Your task to perform on an android device: Open the web browser Image 0: 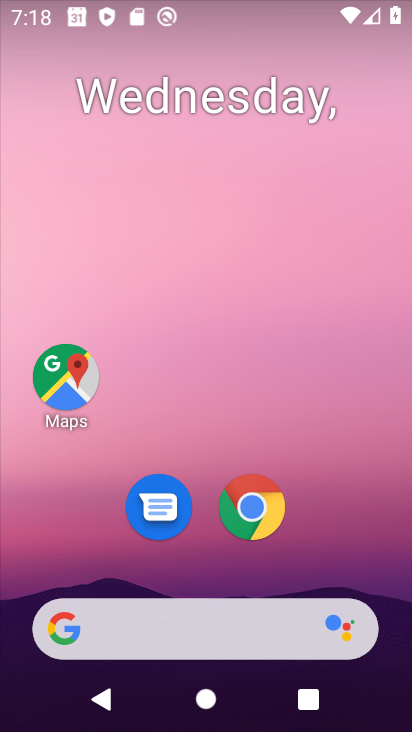
Step 0: drag from (252, 654) to (302, 138)
Your task to perform on an android device: Open the web browser Image 1: 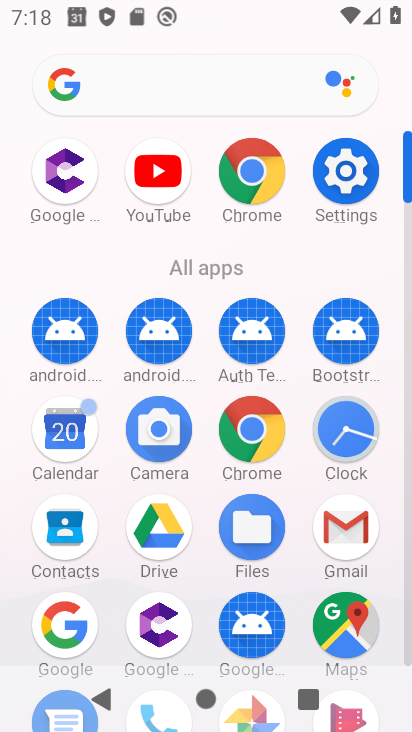
Step 1: click (261, 174)
Your task to perform on an android device: Open the web browser Image 2: 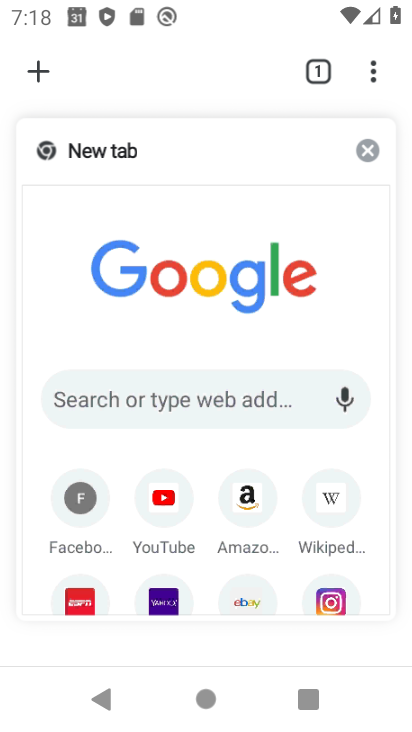
Step 2: click (124, 205)
Your task to perform on an android device: Open the web browser Image 3: 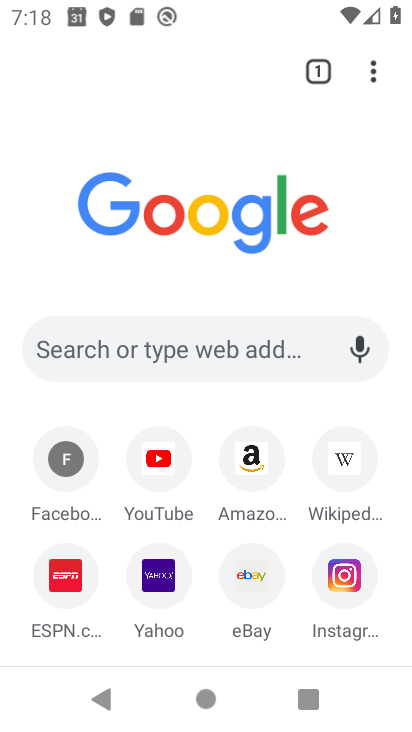
Step 3: click (95, 351)
Your task to perform on an android device: Open the web browser Image 4: 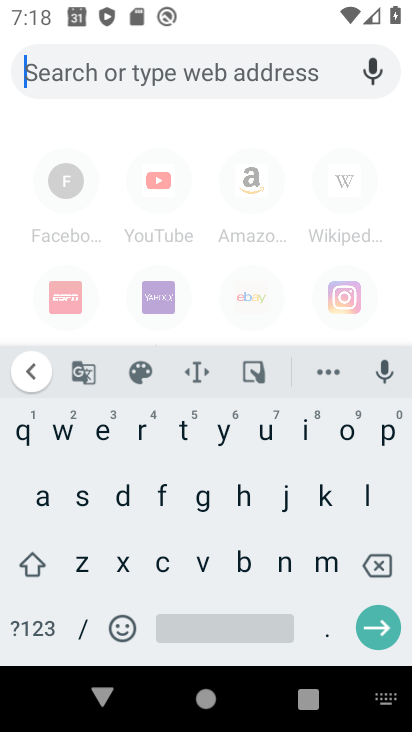
Step 4: click (65, 430)
Your task to perform on an android device: Open the web browser Image 5: 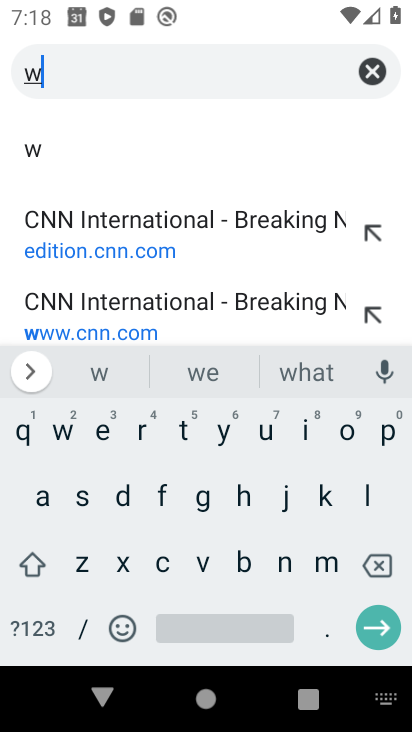
Step 5: click (98, 429)
Your task to perform on an android device: Open the web browser Image 6: 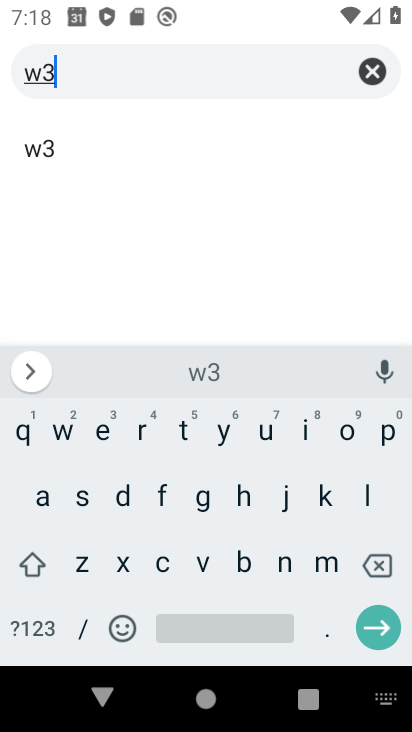
Step 6: click (380, 553)
Your task to perform on an android device: Open the web browser Image 7: 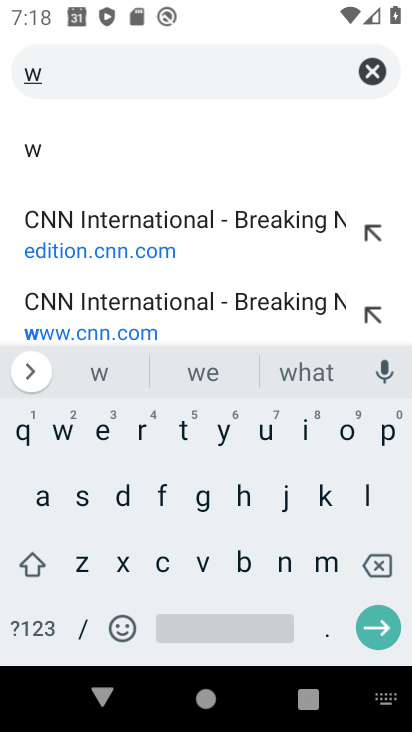
Step 7: click (104, 429)
Your task to perform on an android device: Open the web browser Image 8: 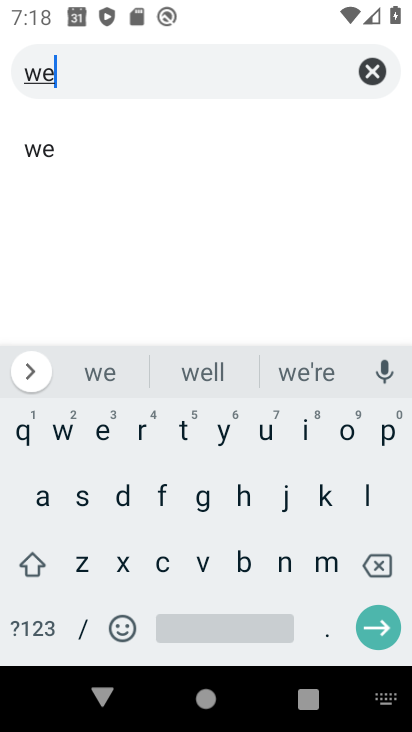
Step 8: click (241, 567)
Your task to perform on an android device: Open the web browser Image 9: 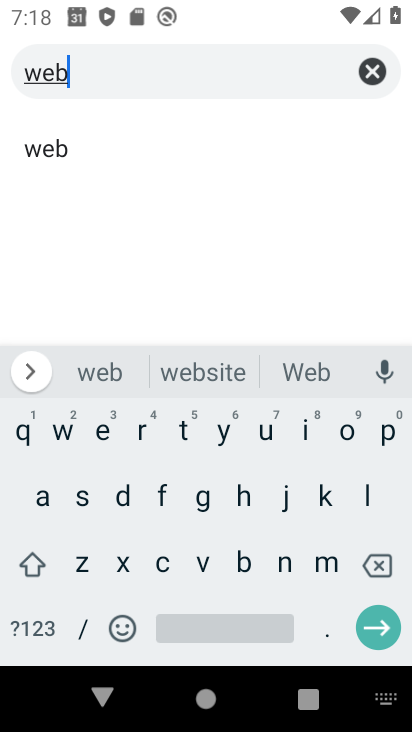
Step 9: click (201, 623)
Your task to perform on an android device: Open the web browser Image 10: 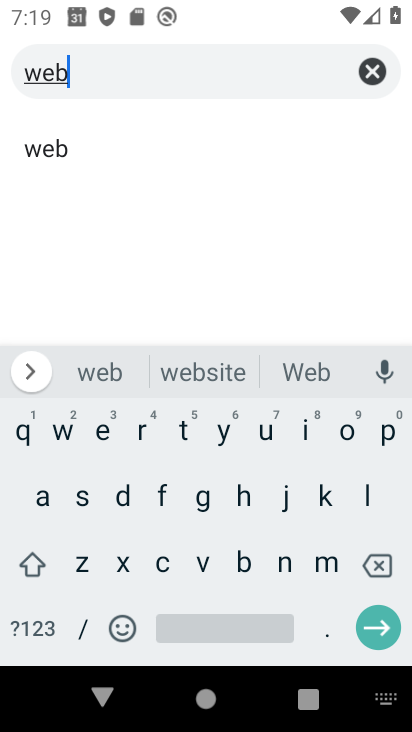
Step 10: click (241, 567)
Your task to perform on an android device: Open the web browser Image 11: 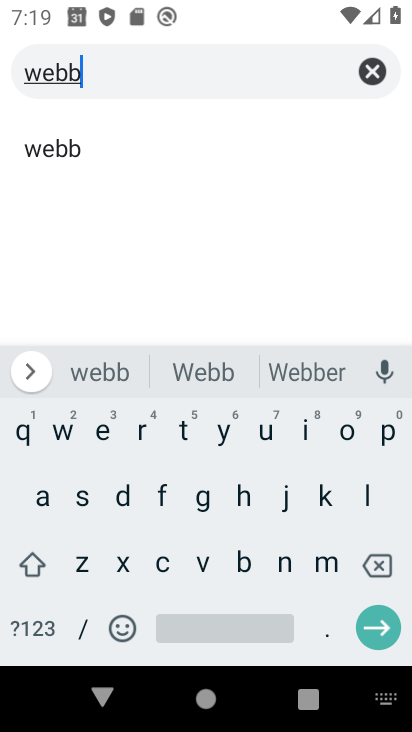
Step 11: click (134, 428)
Your task to perform on an android device: Open the web browser Image 12: 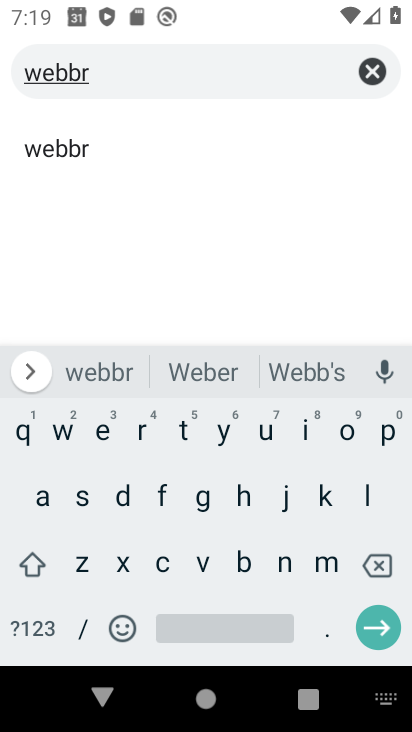
Step 12: click (379, 564)
Your task to perform on an android device: Open the web browser Image 13: 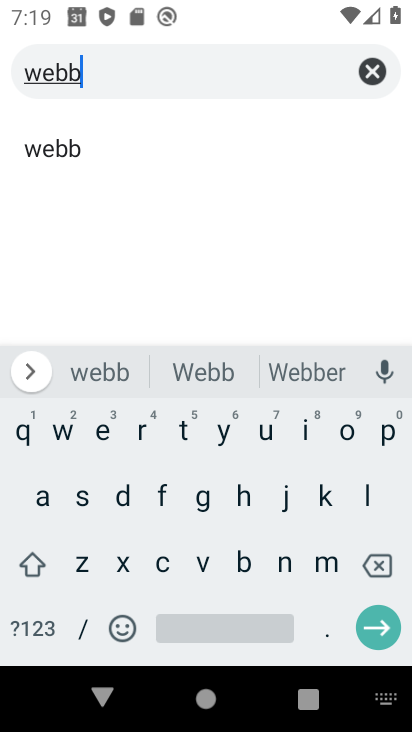
Step 13: click (378, 562)
Your task to perform on an android device: Open the web browser Image 14: 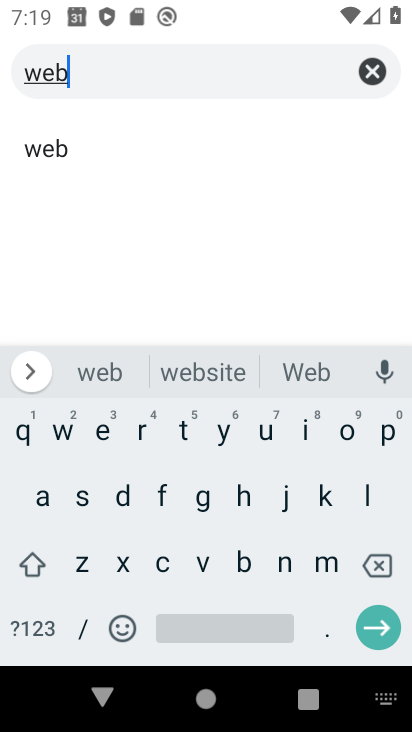
Step 14: click (143, 429)
Your task to perform on an android device: Open the web browser Image 15: 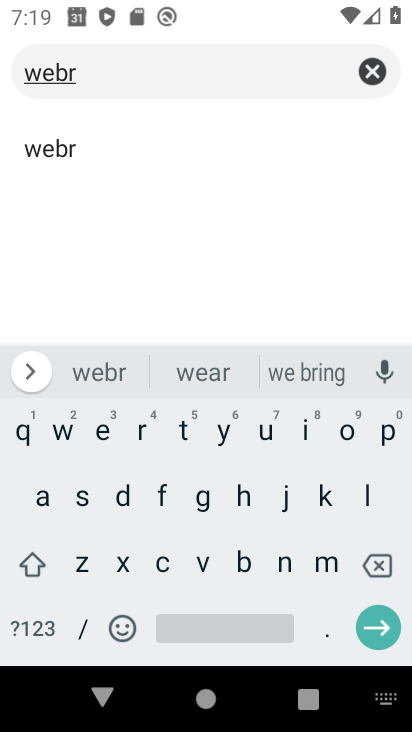
Step 15: click (351, 432)
Your task to perform on an android device: Open the web browser Image 16: 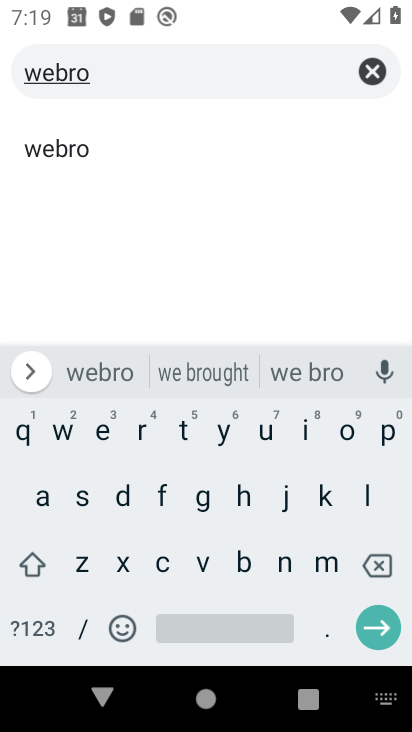
Step 16: click (60, 433)
Your task to perform on an android device: Open the web browser Image 17: 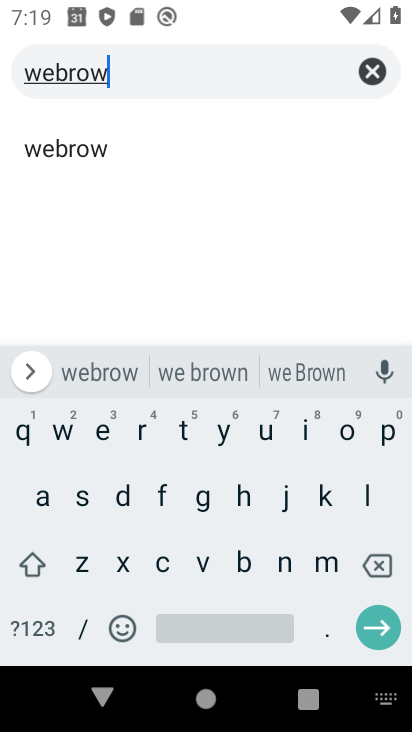
Step 17: click (80, 491)
Your task to perform on an android device: Open the web browser Image 18: 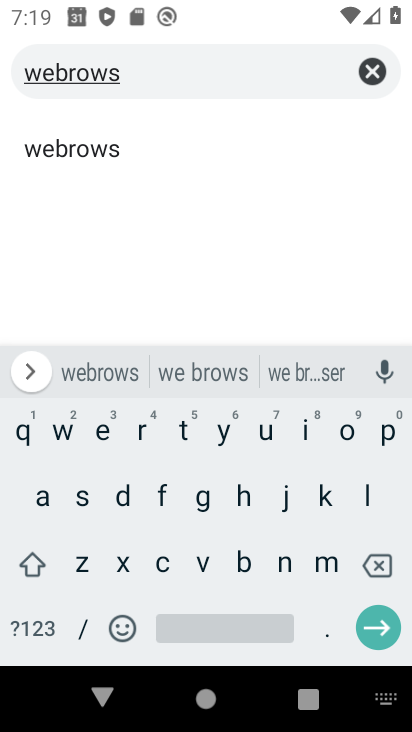
Step 18: click (101, 440)
Your task to perform on an android device: Open the web browser Image 19: 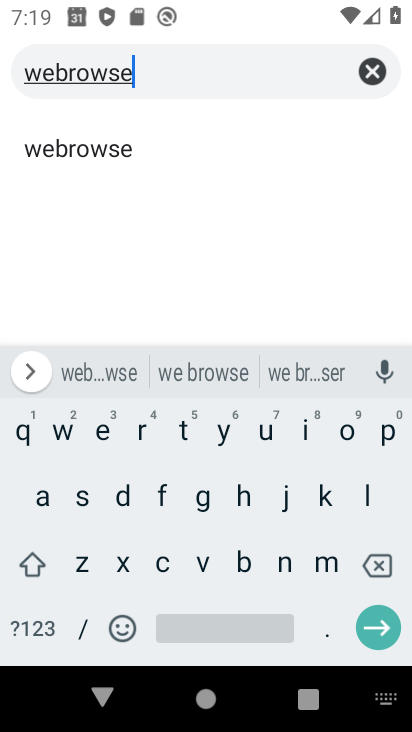
Step 19: click (139, 433)
Your task to perform on an android device: Open the web browser Image 20: 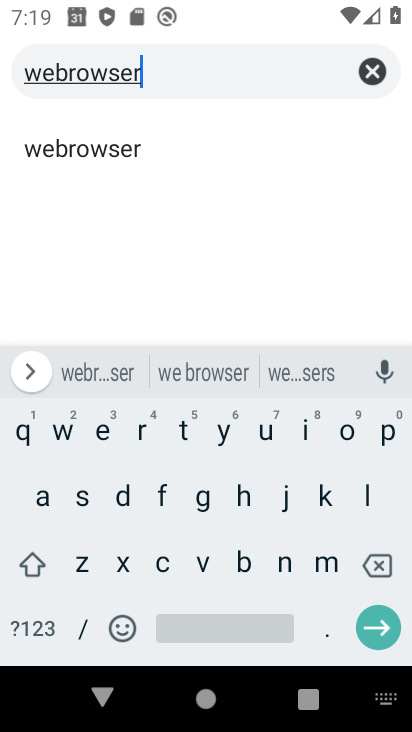
Step 20: click (376, 621)
Your task to perform on an android device: Open the web browser Image 21: 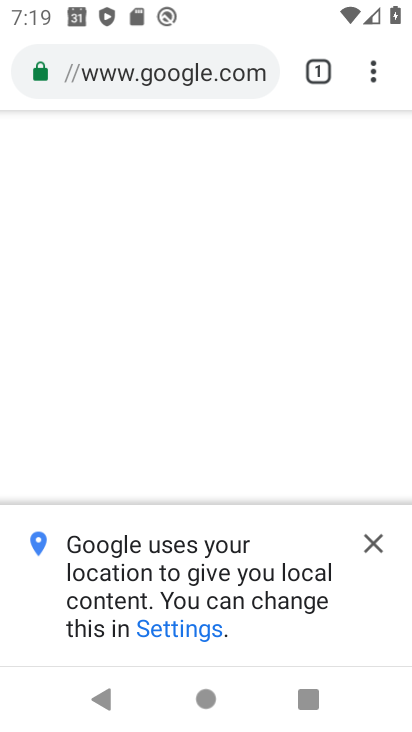
Step 21: click (370, 543)
Your task to perform on an android device: Open the web browser Image 22: 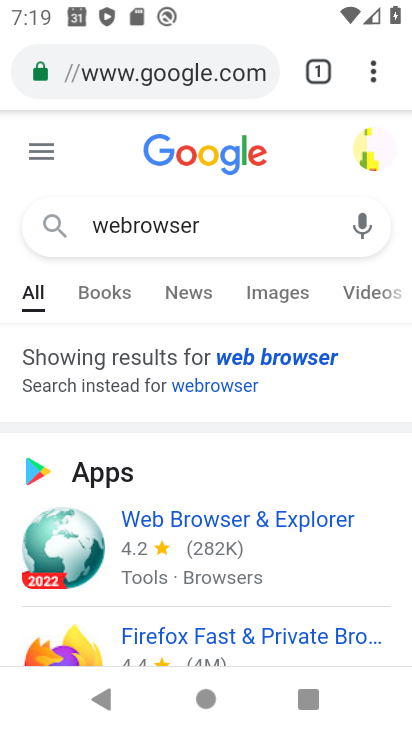
Step 22: click (133, 518)
Your task to perform on an android device: Open the web browser Image 23: 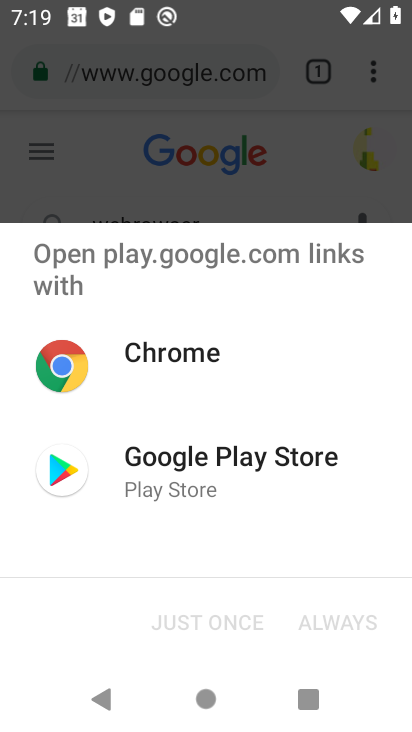
Step 23: click (161, 358)
Your task to perform on an android device: Open the web browser Image 24: 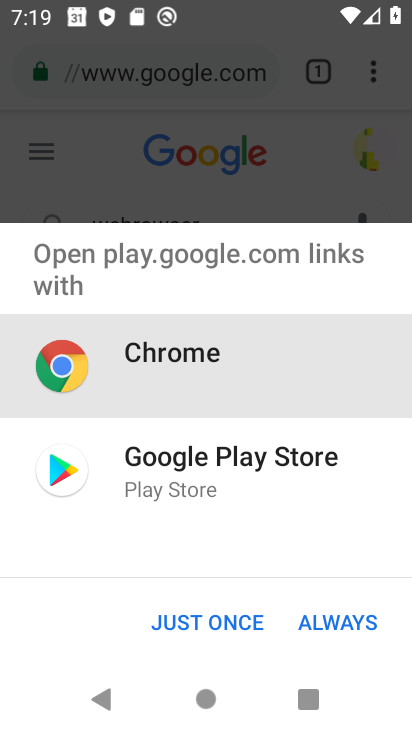
Step 24: click (224, 621)
Your task to perform on an android device: Open the web browser Image 25: 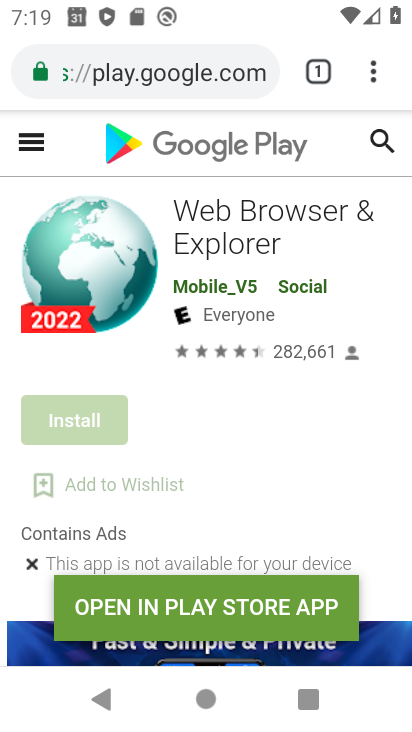
Step 25: task complete